Your task to perform on an android device: create a new album in the google photos Image 0: 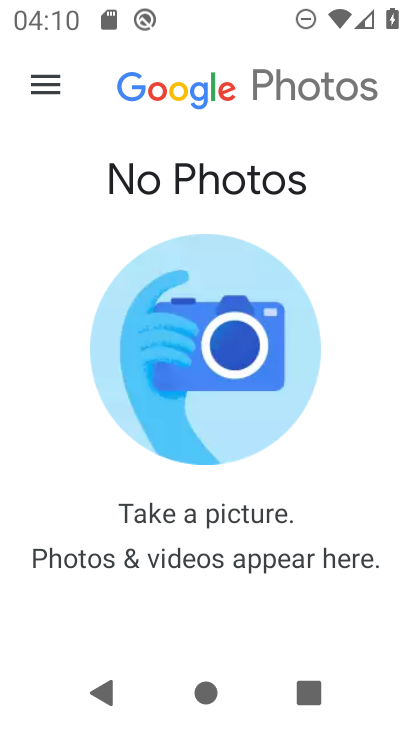
Step 0: task impossible